Your task to perform on an android device: Open the web browser Image 0: 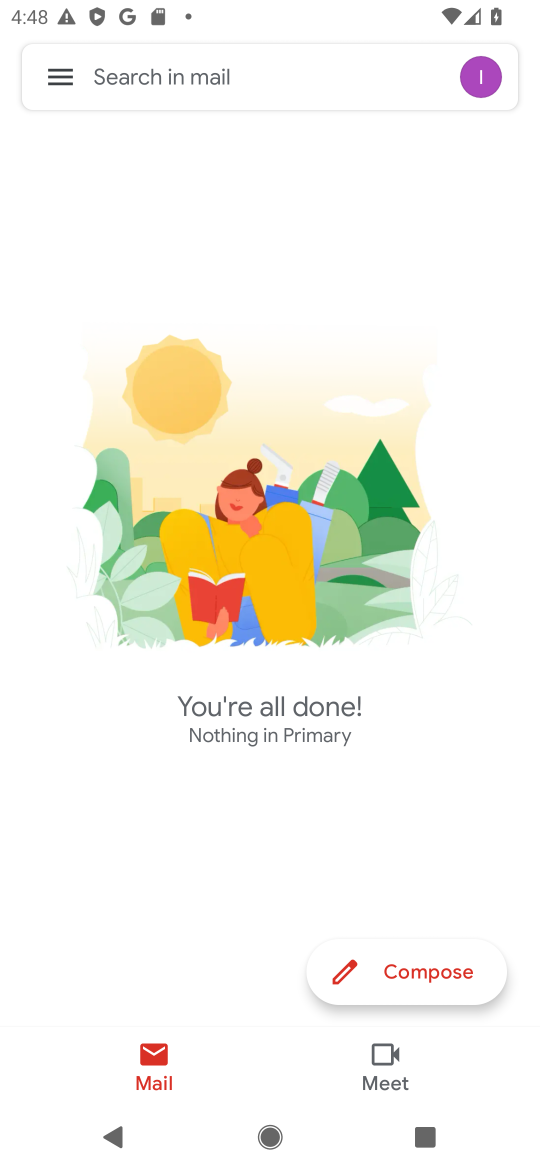
Step 0: press home button
Your task to perform on an android device: Open the web browser Image 1: 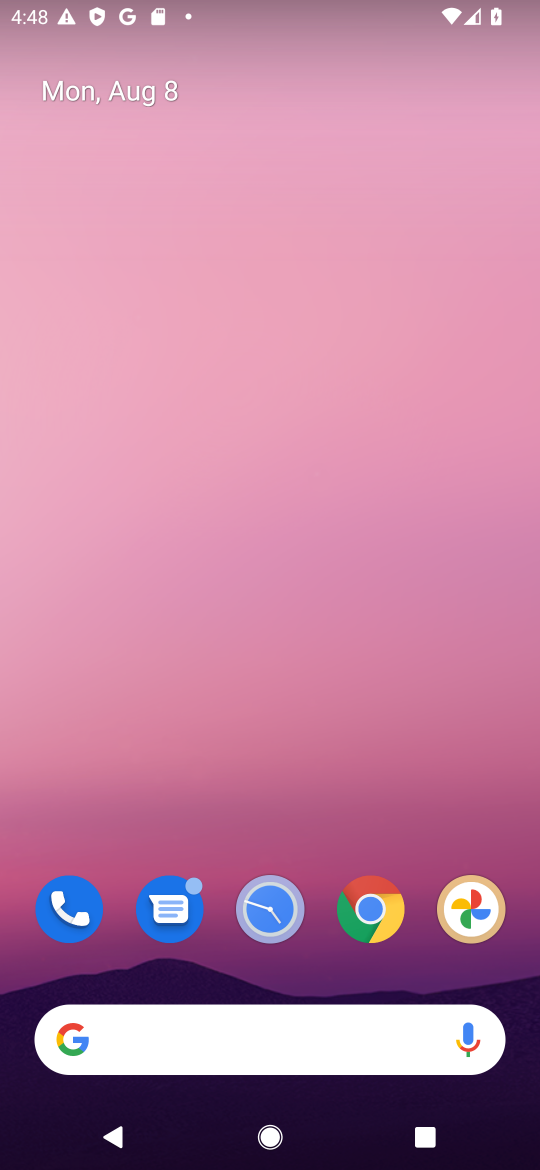
Step 1: click (355, 919)
Your task to perform on an android device: Open the web browser Image 2: 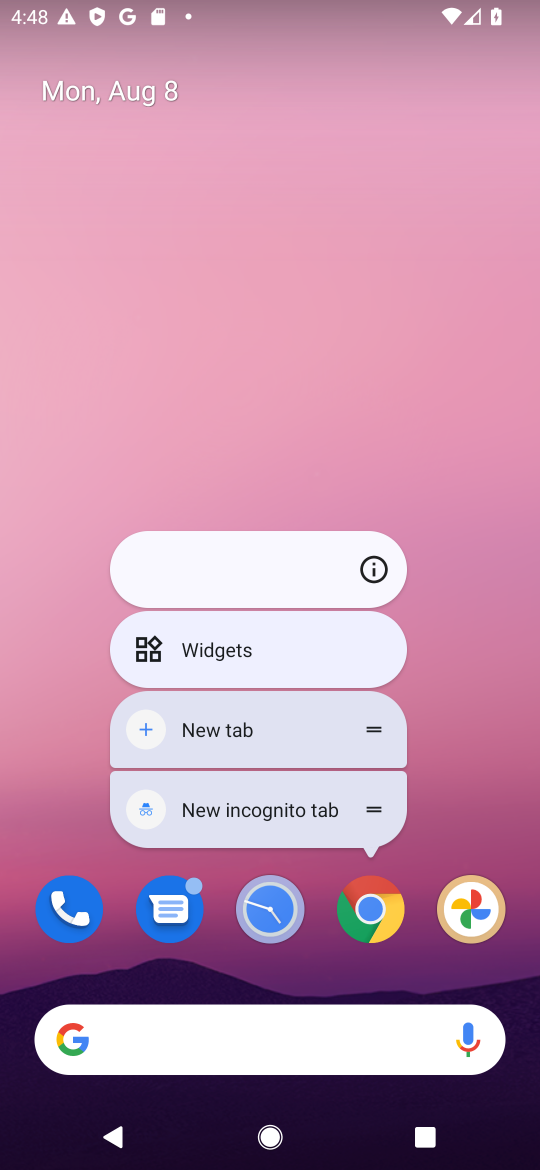
Step 2: click (376, 916)
Your task to perform on an android device: Open the web browser Image 3: 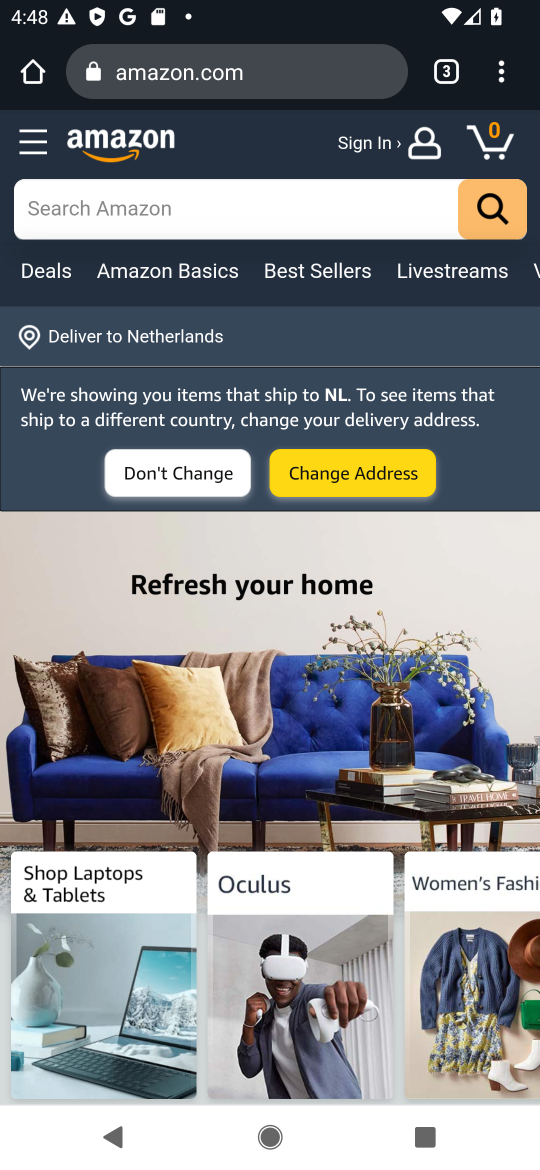
Step 3: task complete